Your task to perform on an android device: empty trash in the gmail app Image 0: 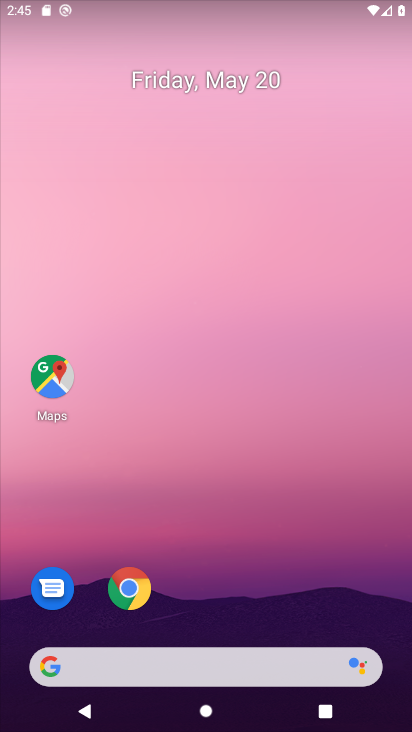
Step 0: drag from (267, 610) to (281, 98)
Your task to perform on an android device: empty trash in the gmail app Image 1: 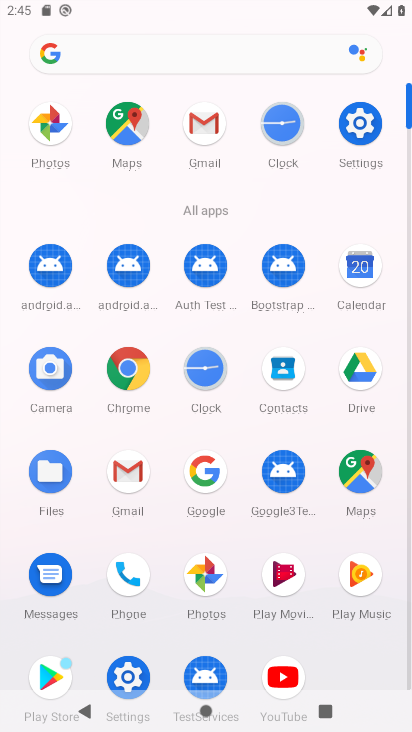
Step 1: click (214, 122)
Your task to perform on an android device: empty trash in the gmail app Image 2: 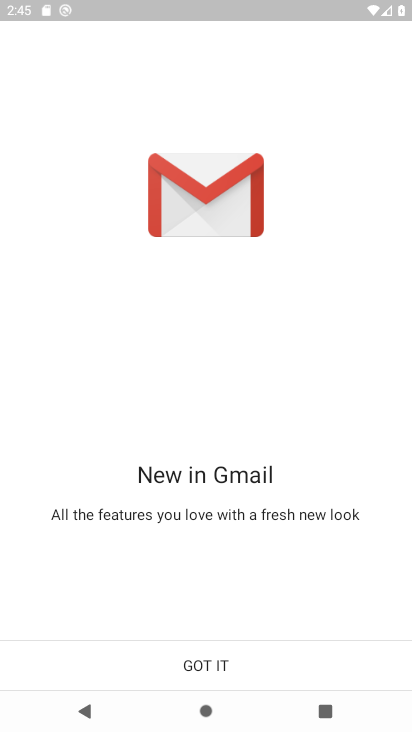
Step 2: click (230, 648)
Your task to perform on an android device: empty trash in the gmail app Image 3: 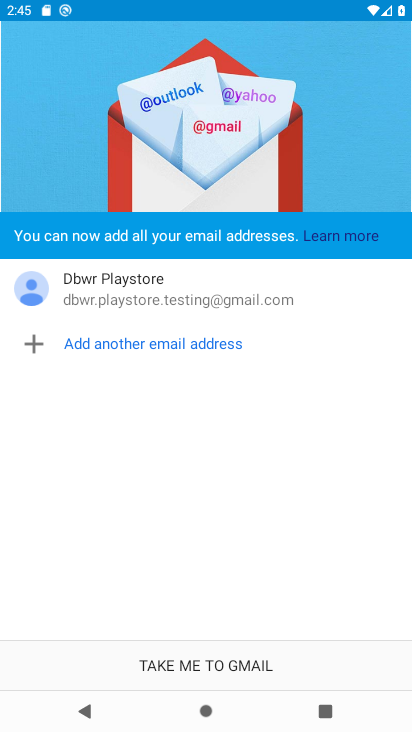
Step 3: click (239, 657)
Your task to perform on an android device: empty trash in the gmail app Image 4: 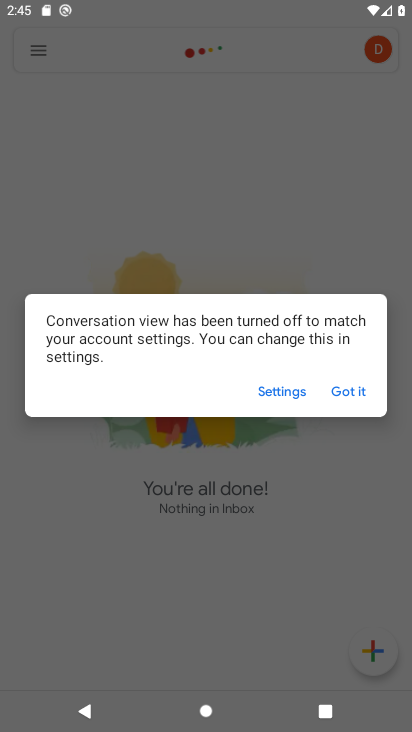
Step 4: click (367, 383)
Your task to perform on an android device: empty trash in the gmail app Image 5: 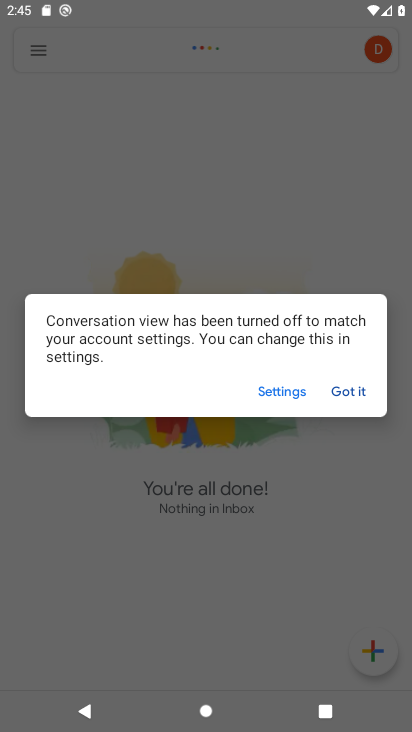
Step 5: click (353, 392)
Your task to perform on an android device: empty trash in the gmail app Image 6: 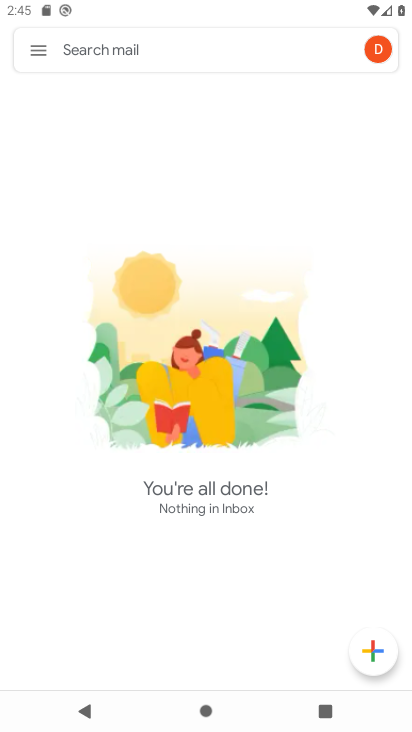
Step 6: click (41, 51)
Your task to perform on an android device: empty trash in the gmail app Image 7: 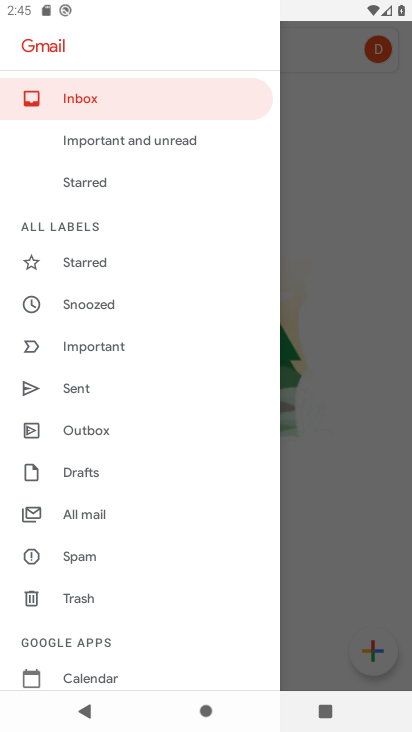
Step 7: click (84, 599)
Your task to perform on an android device: empty trash in the gmail app Image 8: 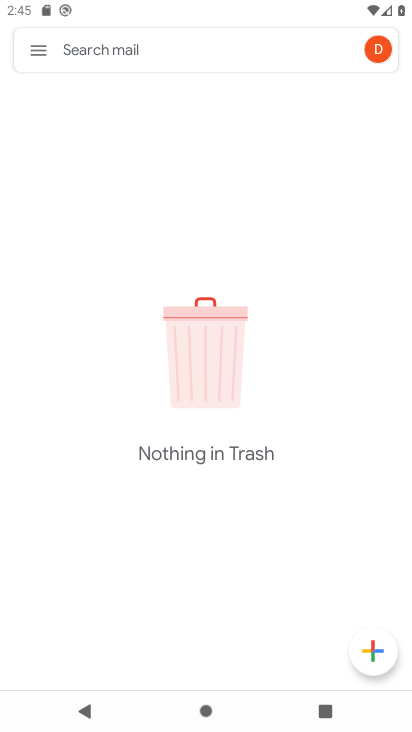
Step 8: task complete